Your task to perform on an android device: Open Google Maps Image 0: 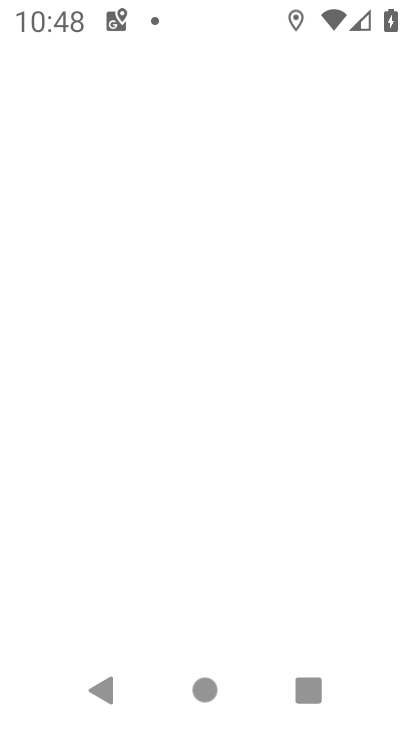
Step 0: press home button
Your task to perform on an android device: Open Google Maps Image 1: 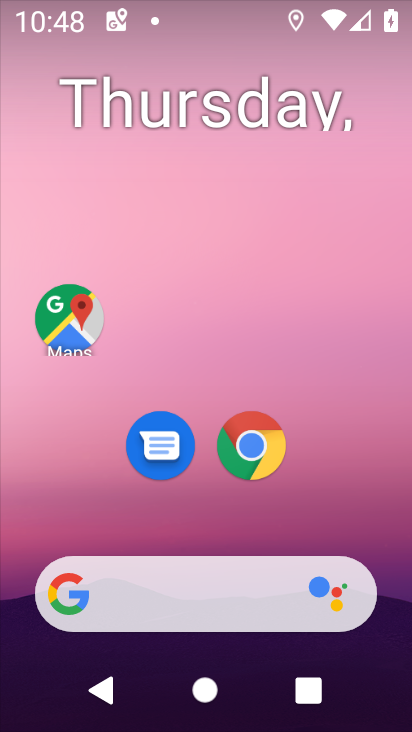
Step 1: drag from (391, 617) to (273, 61)
Your task to perform on an android device: Open Google Maps Image 2: 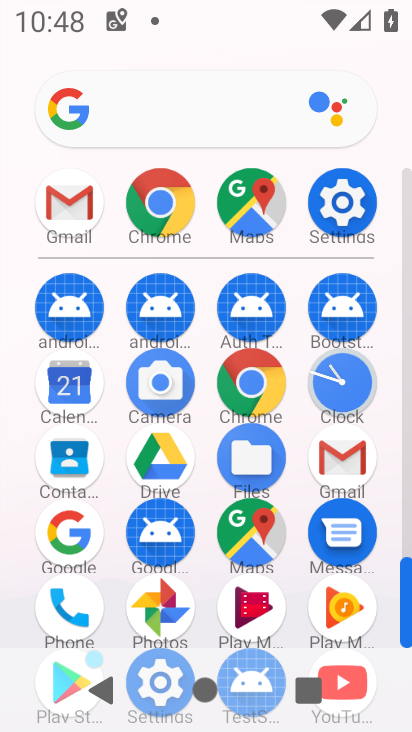
Step 2: click (240, 534)
Your task to perform on an android device: Open Google Maps Image 3: 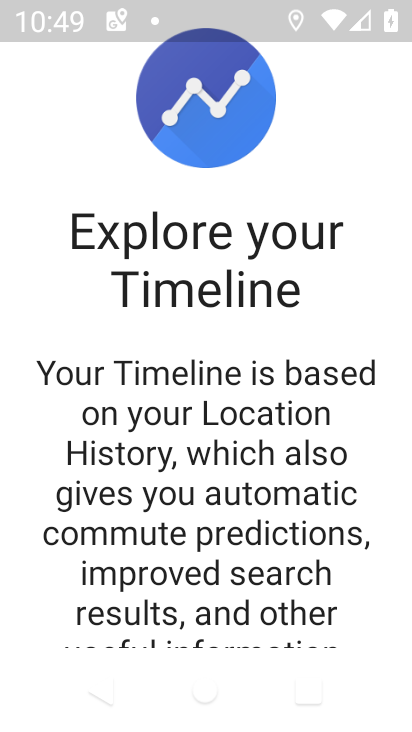
Step 3: task complete